Your task to perform on an android device: Open display settings Image 0: 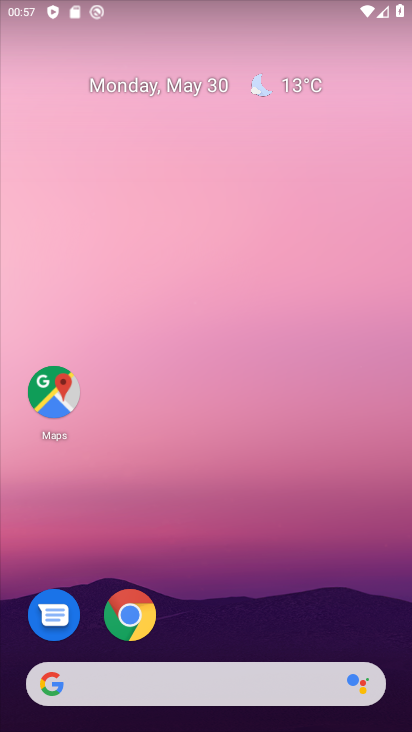
Step 0: drag from (241, 658) to (156, 141)
Your task to perform on an android device: Open display settings Image 1: 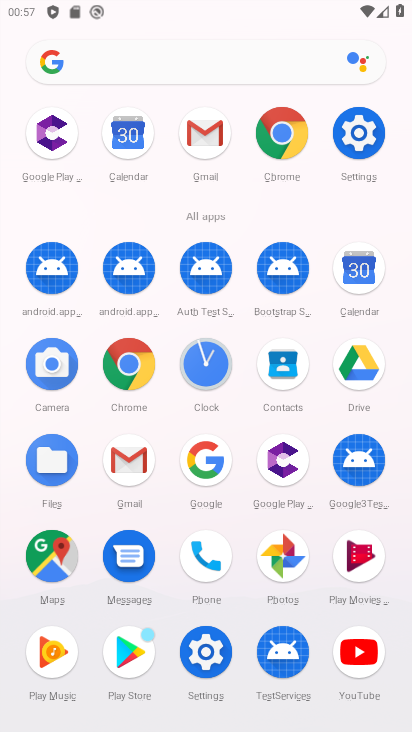
Step 1: click (364, 145)
Your task to perform on an android device: Open display settings Image 2: 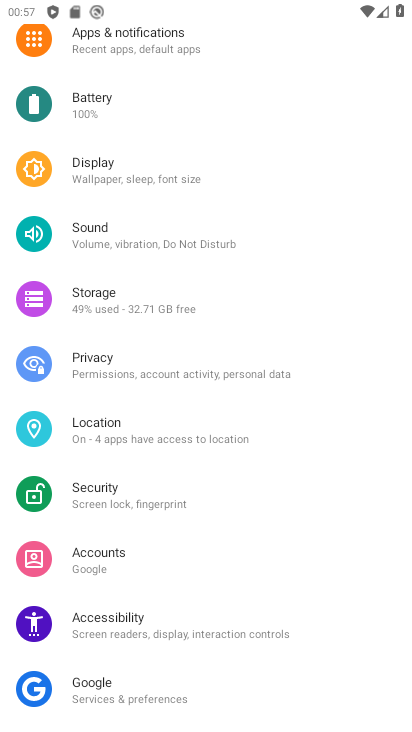
Step 2: click (145, 170)
Your task to perform on an android device: Open display settings Image 3: 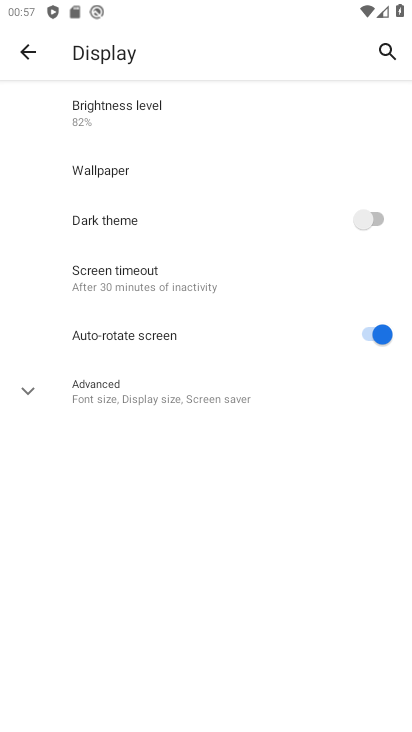
Step 3: click (132, 404)
Your task to perform on an android device: Open display settings Image 4: 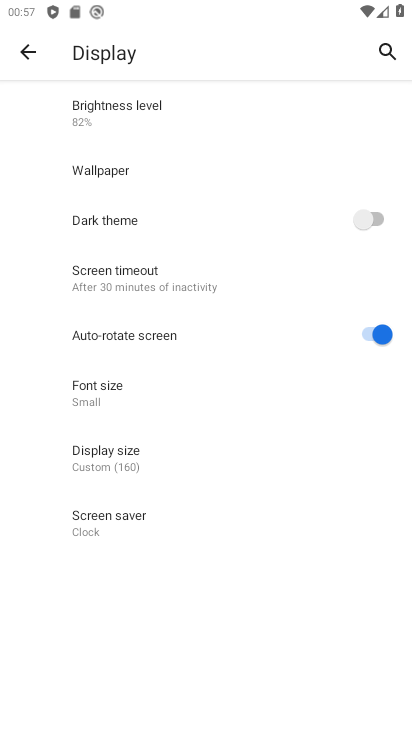
Step 4: task complete